Your task to perform on an android device: What is the recent news? Image 0: 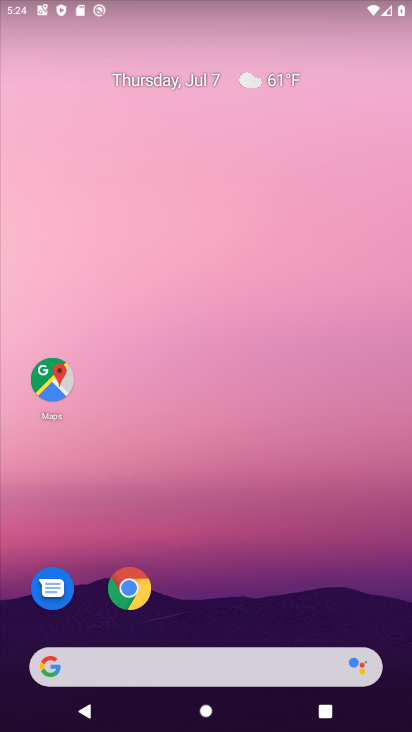
Step 0: click (191, 662)
Your task to perform on an android device: What is the recent news? Image 1: 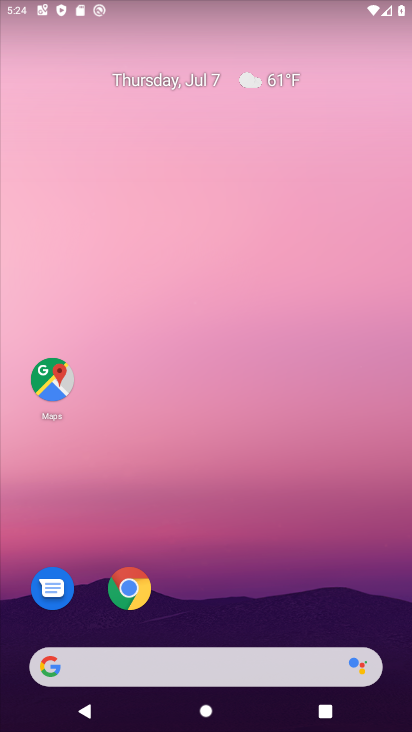
Step 1: click (182, 676)
Your task to perform on an android device: What is the recent news? Image 2: 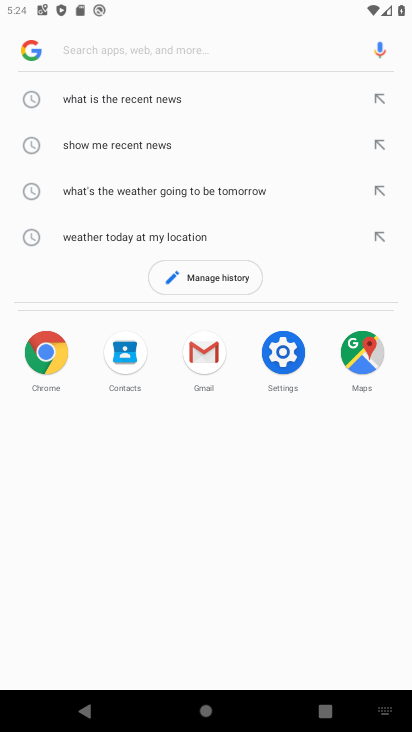
Step 2: click (130, 100)
Your task to perform on an android device: What is the recent news? Image 3: 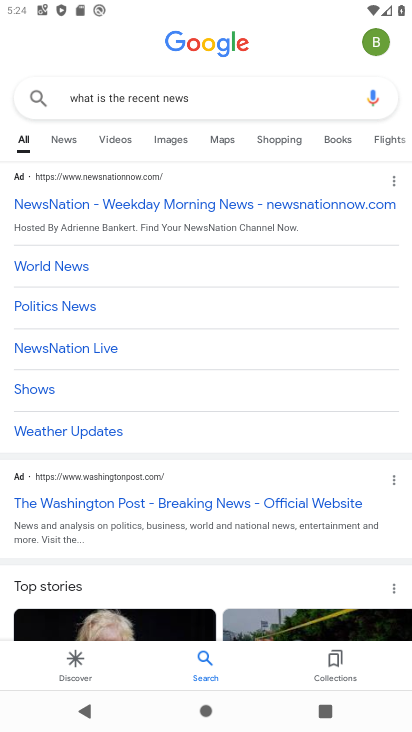
Step 3: task complete